Your task to perform on an android device: check out phone information Image 0: 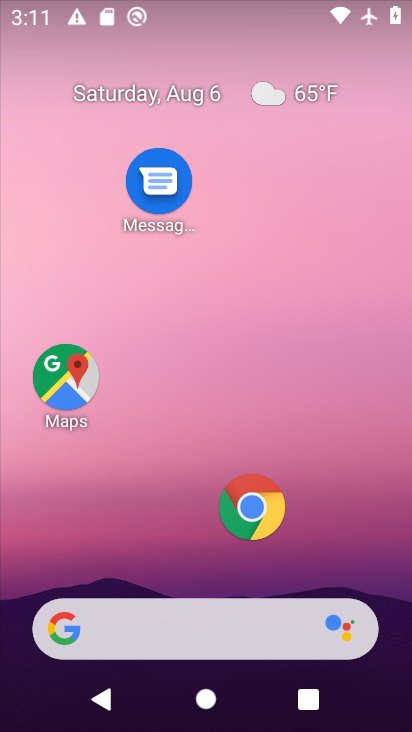
Step 0: drag from (168, 560) to (217, 163)
Your task to perform on an android device: check out phone information Image 1: 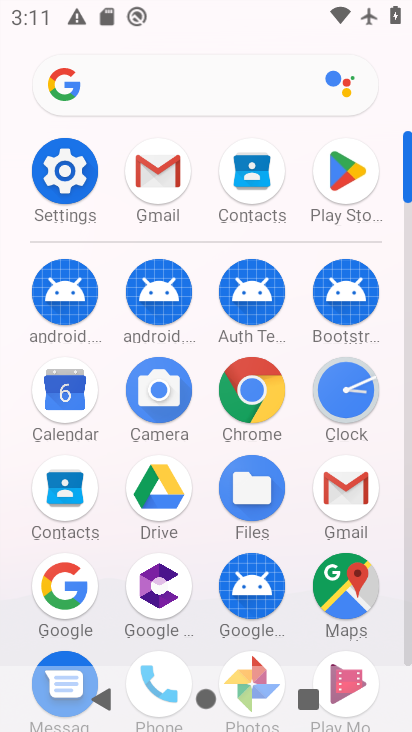
Step 1: drag from (198, 550) to (249, 125)
Your task to perform on an android device: check out phone information Image 2: 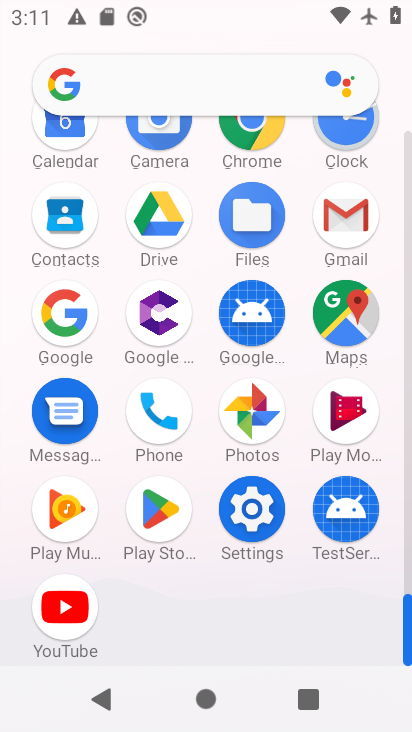
Step 2: click (255, 529)
Your task to perform on an android device: check out phone information Image 3: 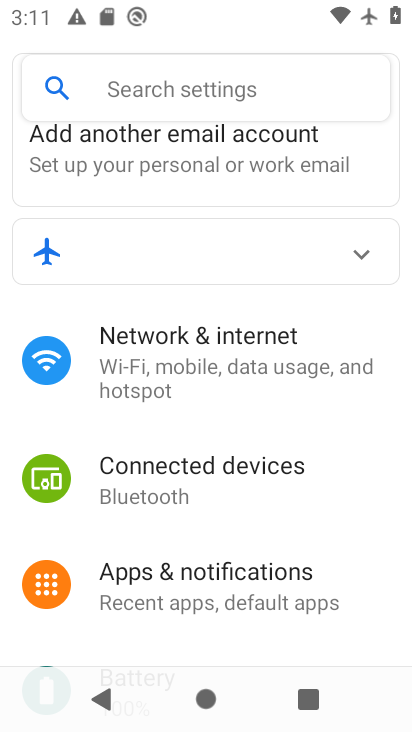
Step 3: drag from (236, 607) to (239, 130)
Your task to perform on an android device: check out phone information Image 4: 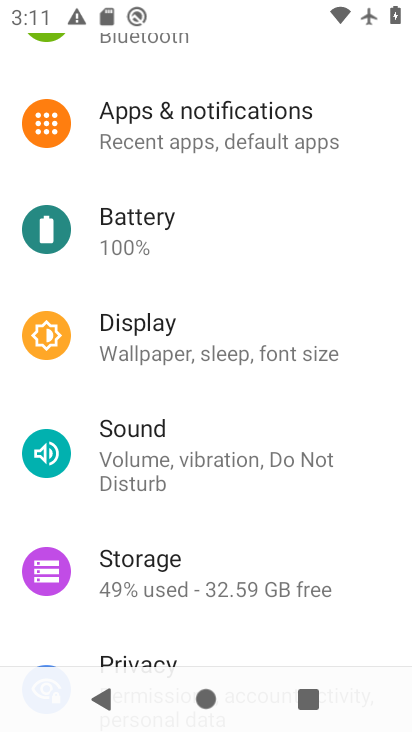
Step 4: drag from (172, 508) to (230, 113)
Your task to perform on an android device: check out phone information Image 5: 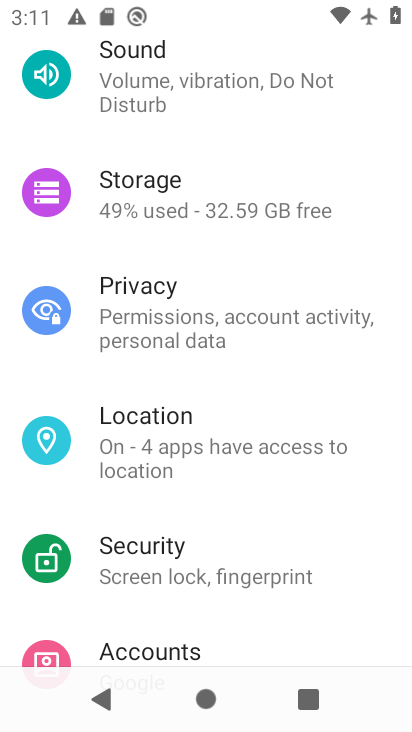
Step 5: drag from (156, 551) to (198, 282)
Your task to perform on an android device: check out phone information Image 6: 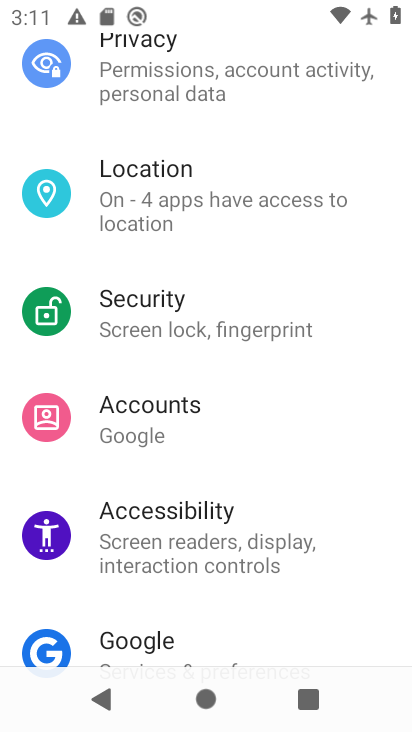
Step 6: drag from (191, 577) to (267, 229)
Your task to perform on an android device: check out phone information Image 7: 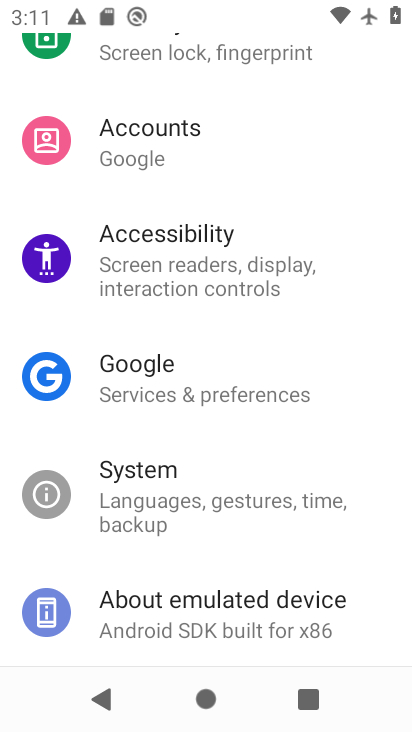
Step 7: click (197, 620)
Your task to perform on an android device: check out phone information Image 8: 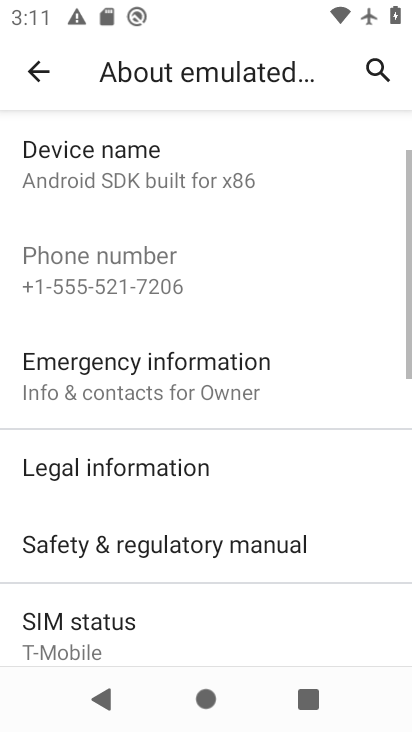
Step 8: task complete